Your task to perform on an android device: refresh tabs in the chrome app Image 0: 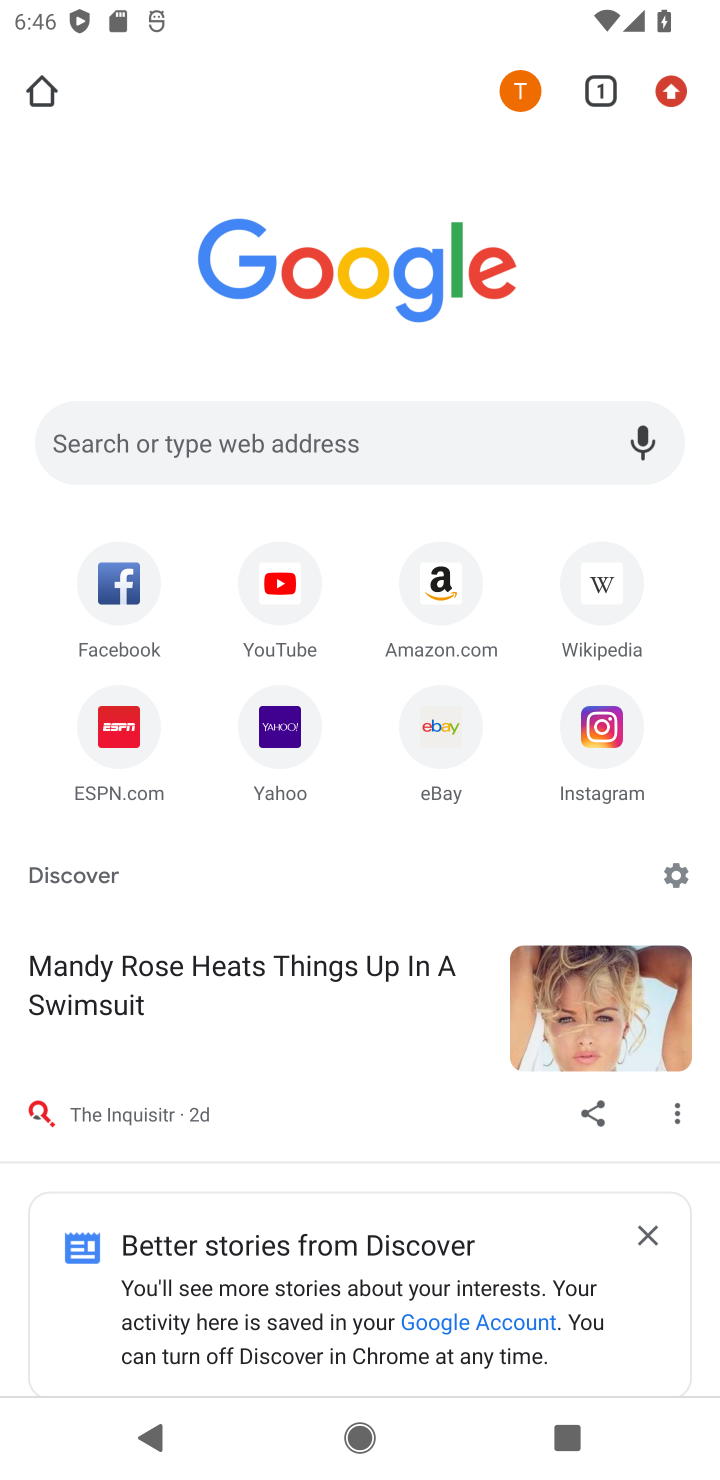
Step 0: press home button
Your task to perform on an android device: refresh tabs in the chrome app Image 1: 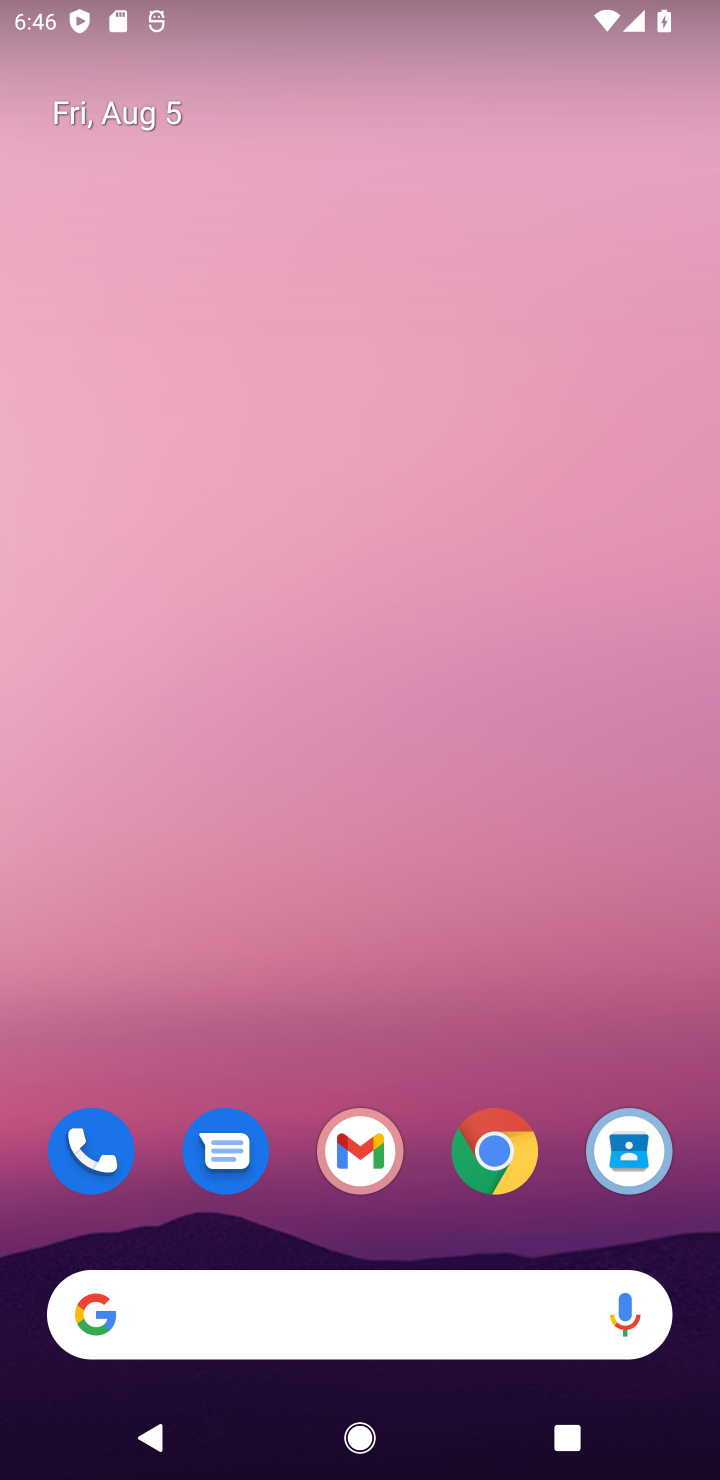
Step 1: click (511, 1164)
Your task to perform on an android device: refresh tabs in the chrome app Image 2: 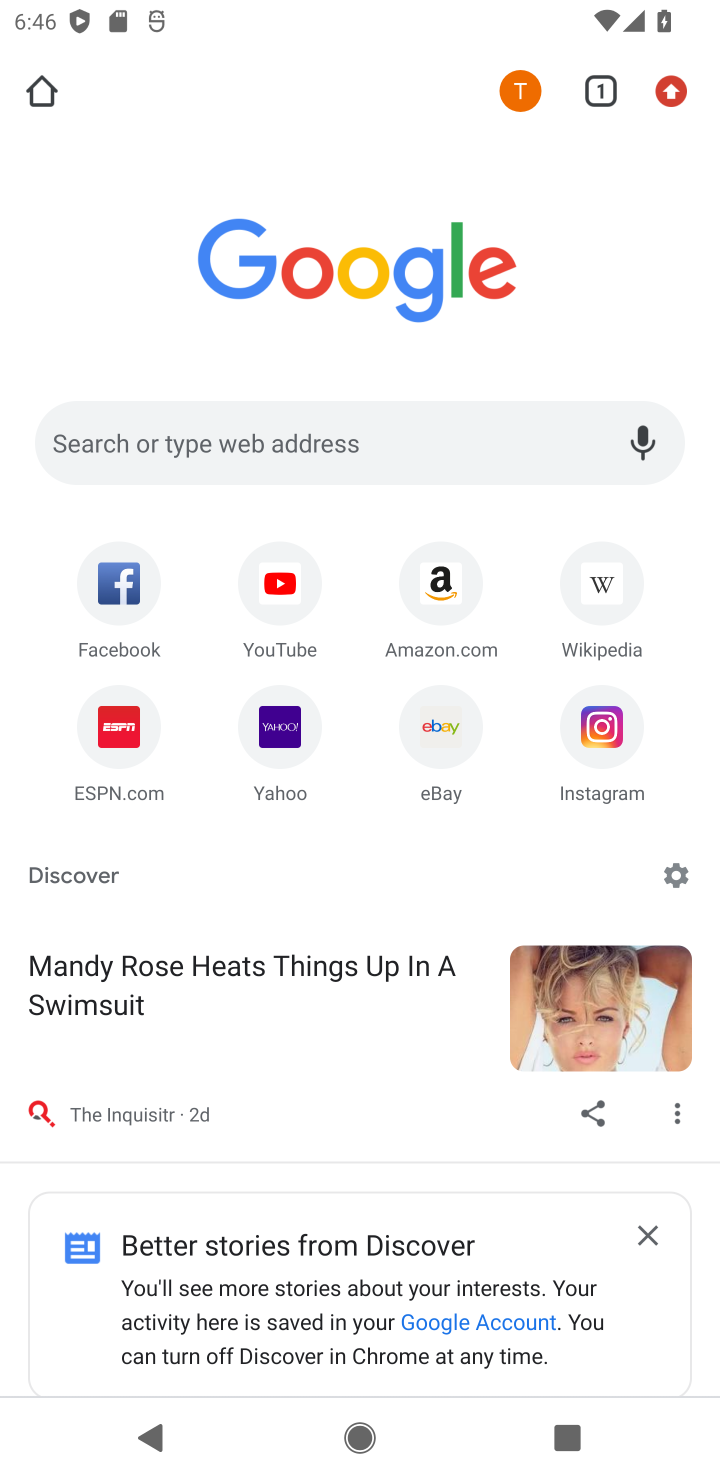
Step 2: click (683, 85)
Your task to perform on an android device: refresh tabs in the chrome app Image 3: 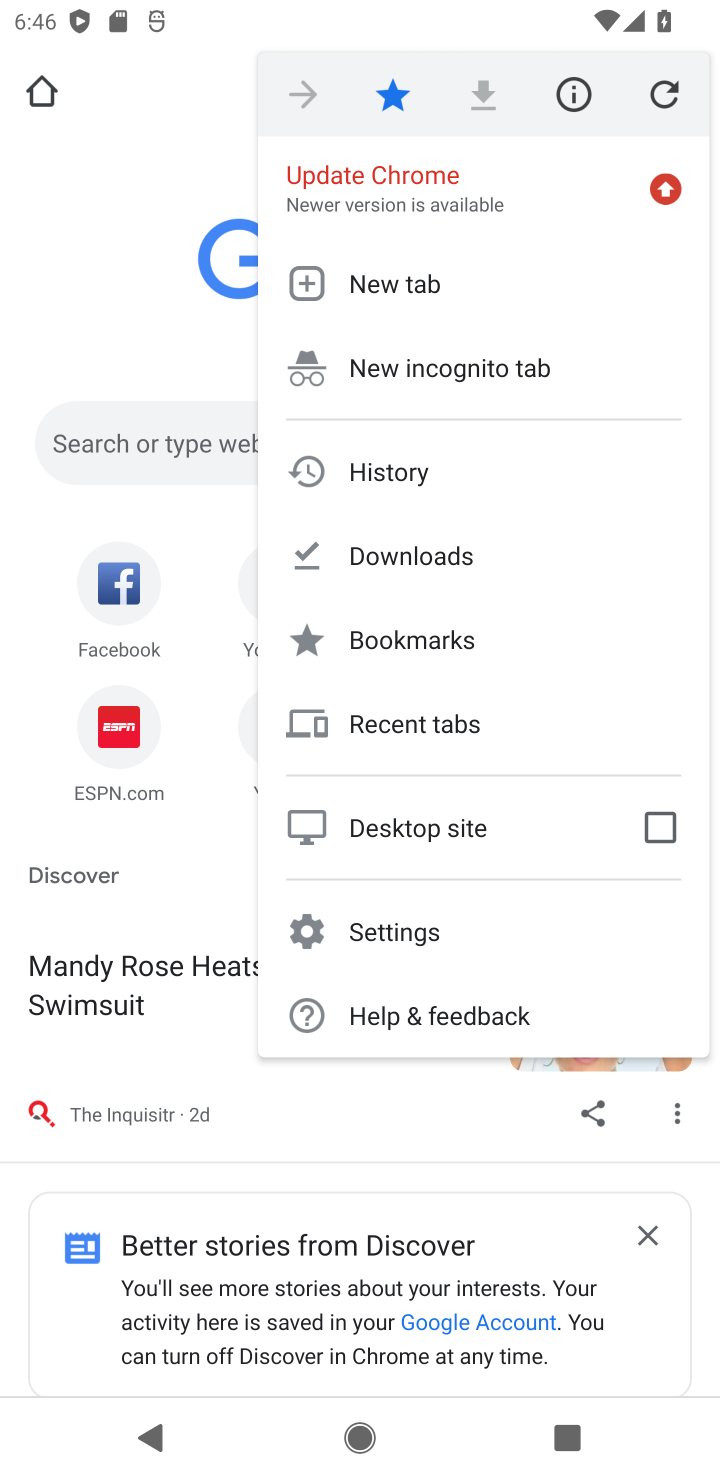
Step 3: click (669, 98)
Your task to perform on an android device: refresh tabs in the chrome app Image 4: 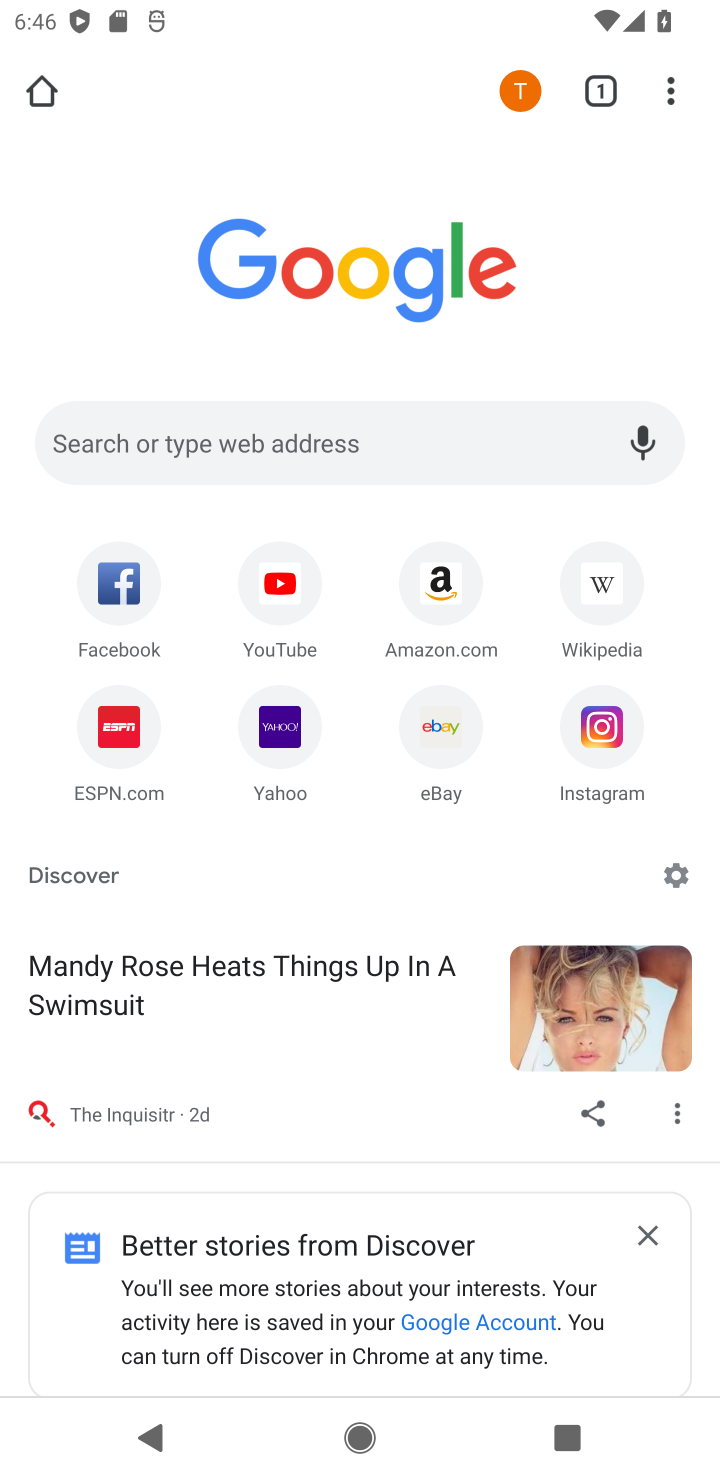
Step 4: task complete